Your task to perform on an android device: Go to Google Image 0: 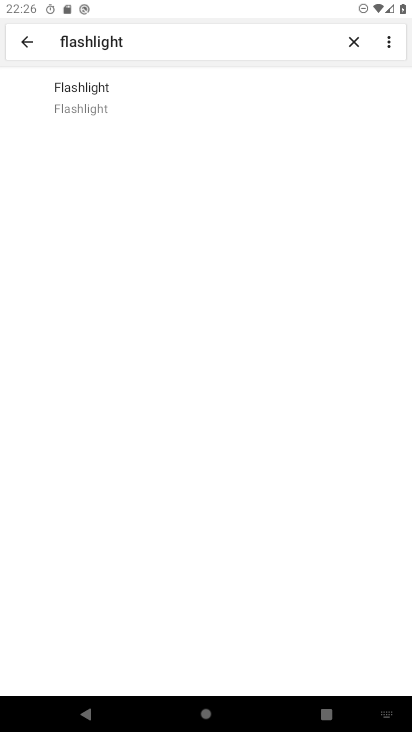
Step 0: press home button
Your task to perform on an android device: Go to Google Image 1: 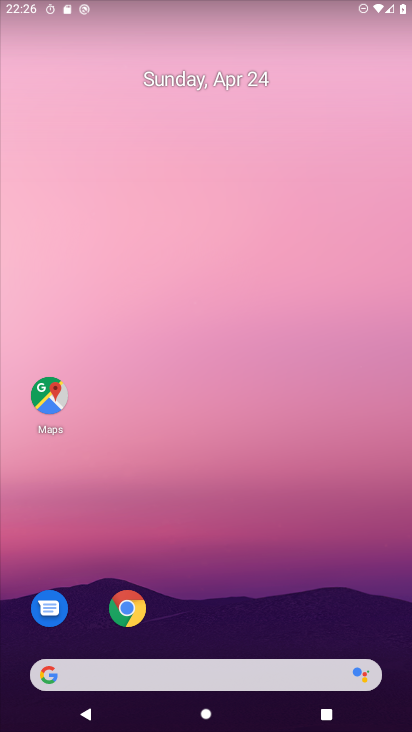
Step 1: click (178, 674)
Your task to perform on an android device: Go to Google Image 2: 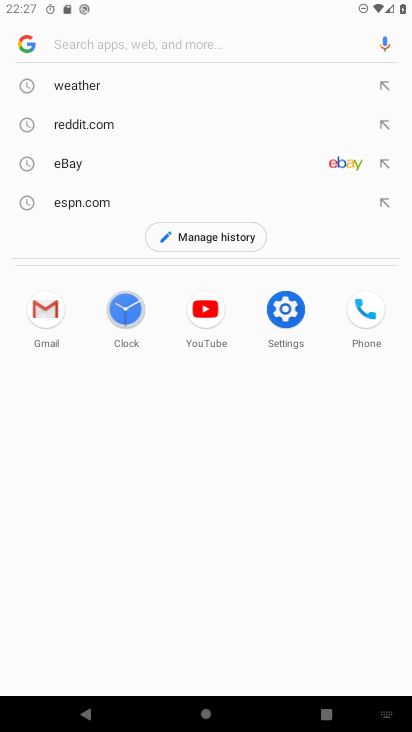
Step 2: click (29, 42)
Your task to perform on an android device: Go to Google Image 3: 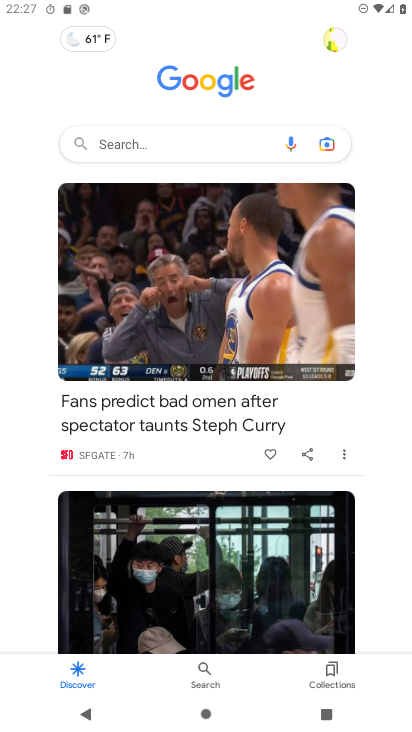
Step 3: task complete